Your task to perform on an android device: check android version Image 0: 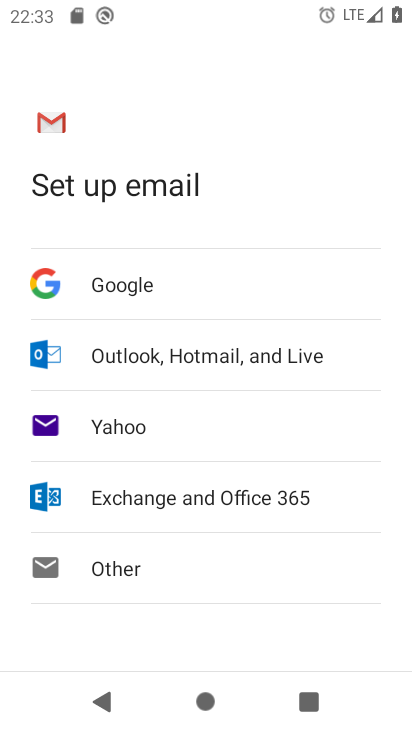
Step 0: press home button
Your task to perform on an android device: check android version Image 1: 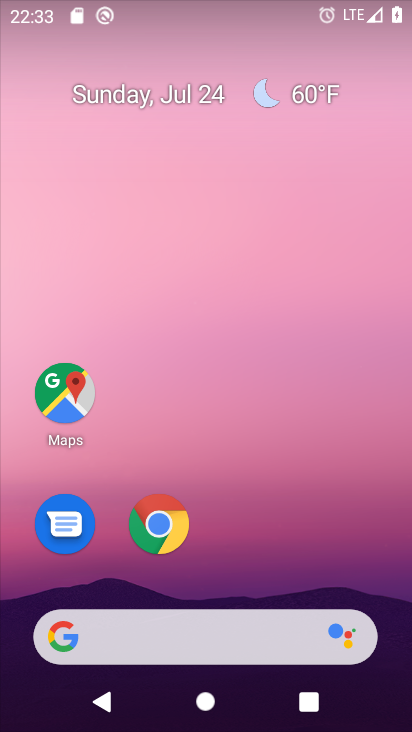
Step 1: drag from (285, 538) to (320, 10)
Your task to perform on an android device: check android version Image 2: 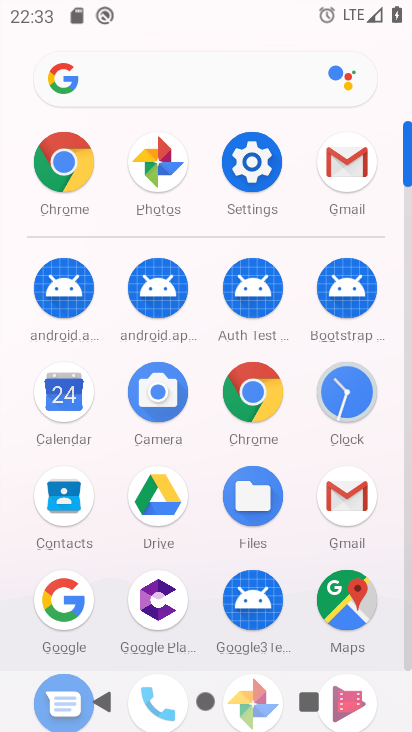
Step 2: click (254, 164)
Your task to perform on an android device: check android version Image 3: 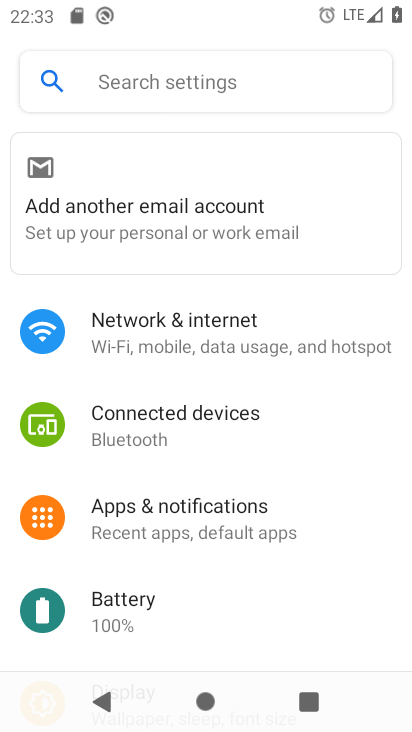
Step 3: drag from (225, 437) to (260, 157)
Your task to perform on an android device: check android version Image 4: 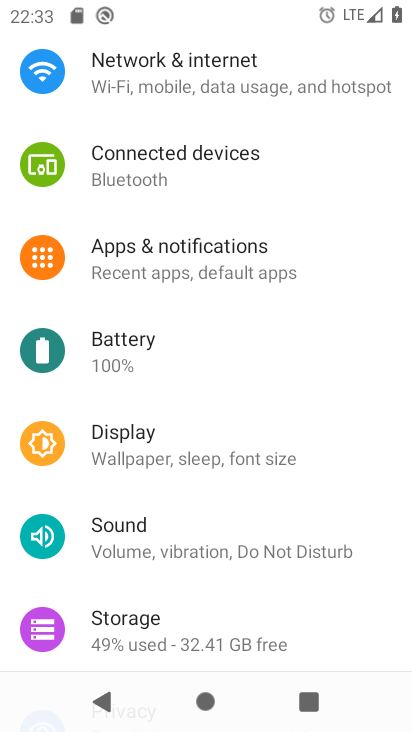
Step 4: drag from (252, 525) to (292, 163)
Your task to perform on an android device: check android version Image 5: 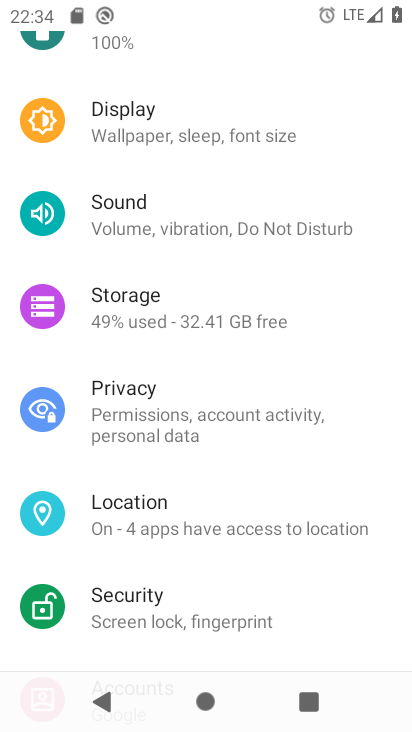
Step 5: drag from (197, 486) to (222, 126)
Your task to perform on an android device: check android version Image 6: 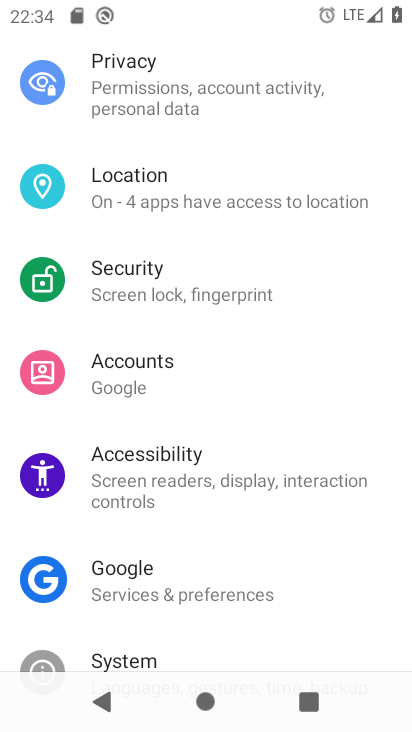
Step 6: drag from (167, 472) to (239, 96)
Your task to perform on an android device: check android version Image 7: 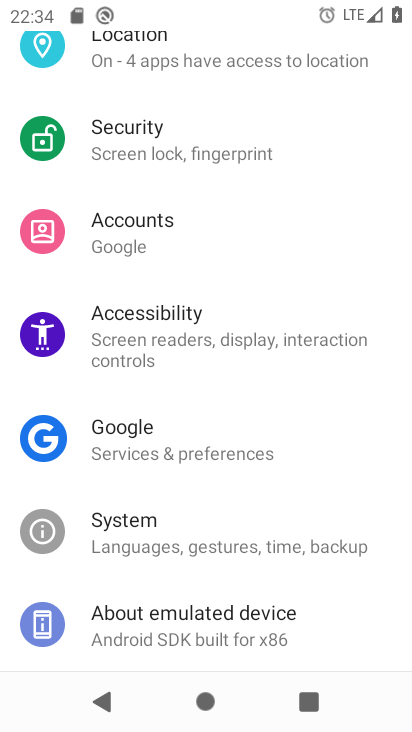
Step 7: click (190, 624)
Your task to perform on an android device: check android version Image 8: 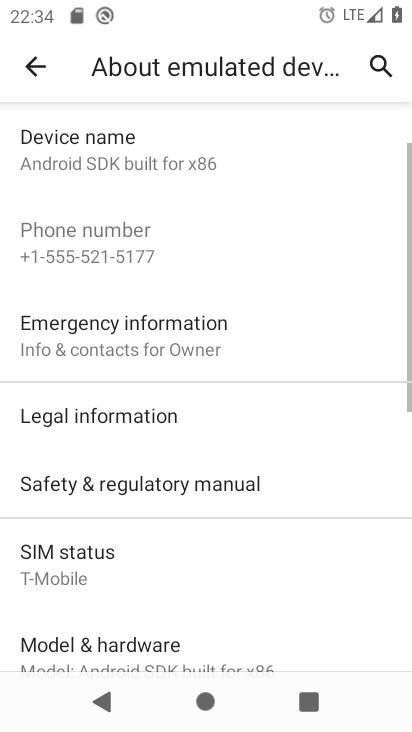
Step 8: drag from (222, 587) to (238, 198)
Your task to perform on an android device: check android version Image 9: 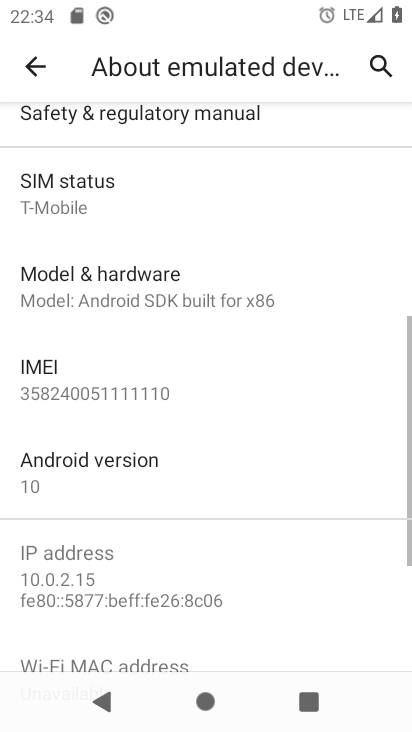
Step 9: click (126, 463)
Your task to perform on an android device: check android version Image 10: 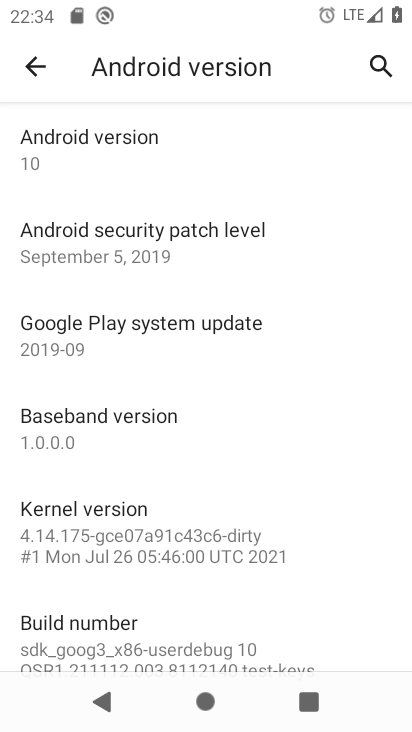
Step 10: task complete